Your task to perform on an android device: Go to accessibility settings Image 0: 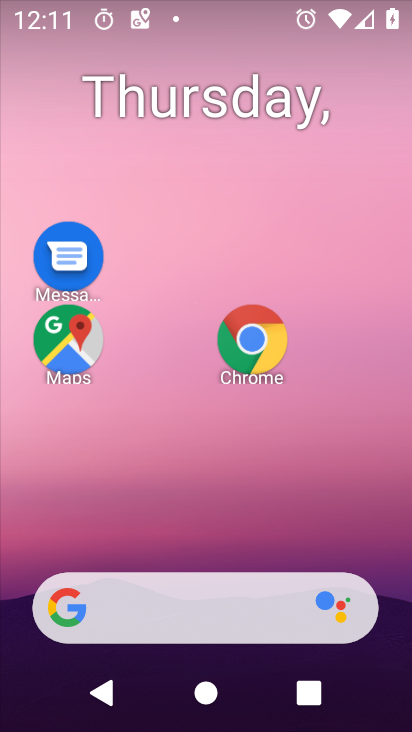
Step 0: drag from (204, 489) to (201, 29)
Your task to perform on an android device: Go to accessibility settings Image 1: 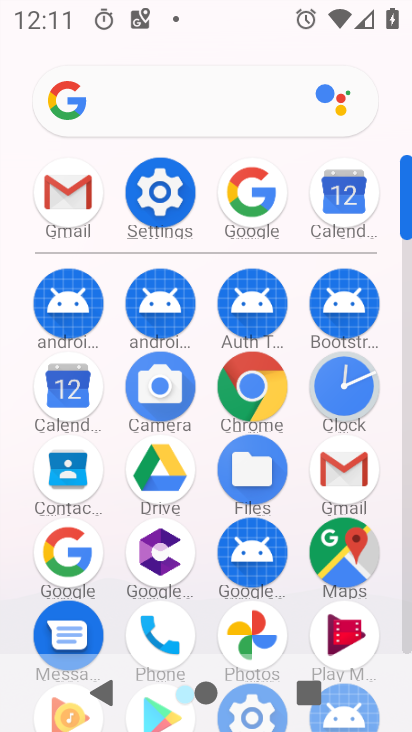
Step 1: click (154, 193)
Your task to perform on an android device: Go to accessibility settings Image 2: 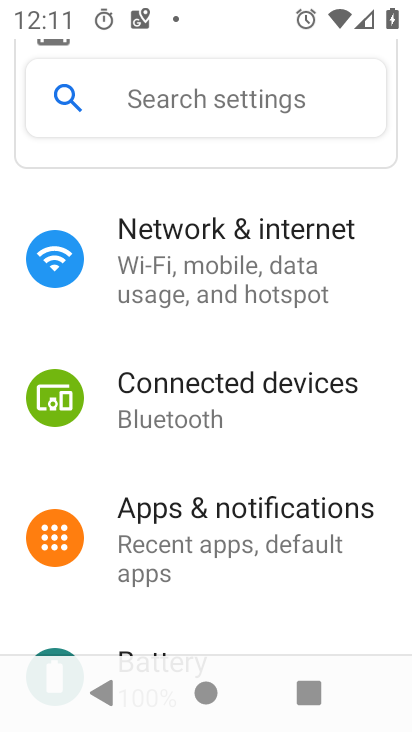
Step 2: drag from (245, 466) to (256, 87)
Your task to perform on an android device: Go to accessibility settings Image 3: 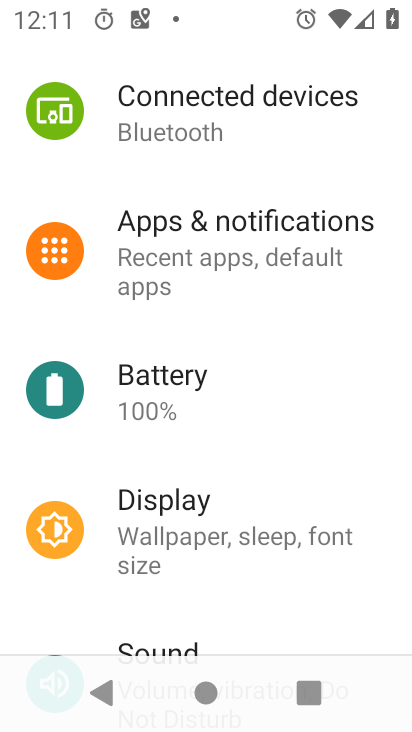
Step 3: drag from (246, 620) to (253, 92)
Your task to perform on an android device: Go to accessibility settings Image 4: 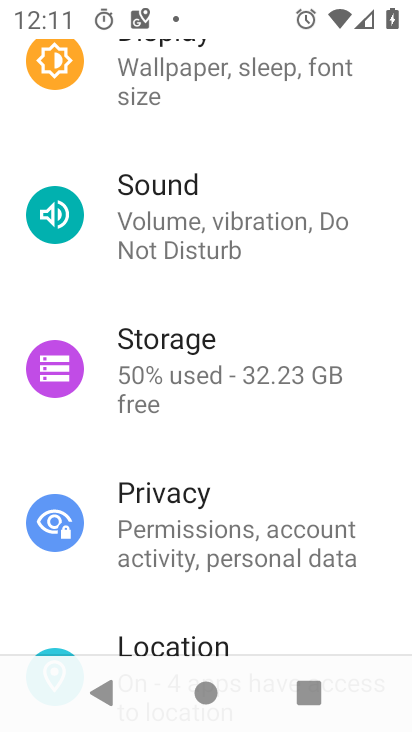
Step 4: drag from (207, 537) to (248, 52)
Your task to perform on an android device: Go to accessibility settings Image 5: 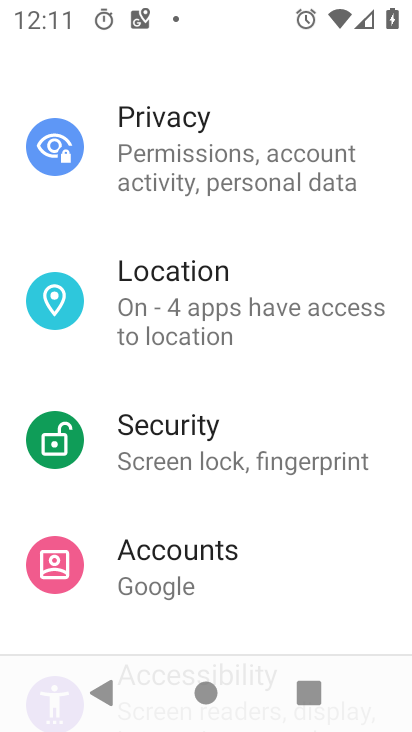
Step 5: drag from (311, 582) to (314, 294)
Your task to perform on an android device: Go to accessibility settings Image 6: 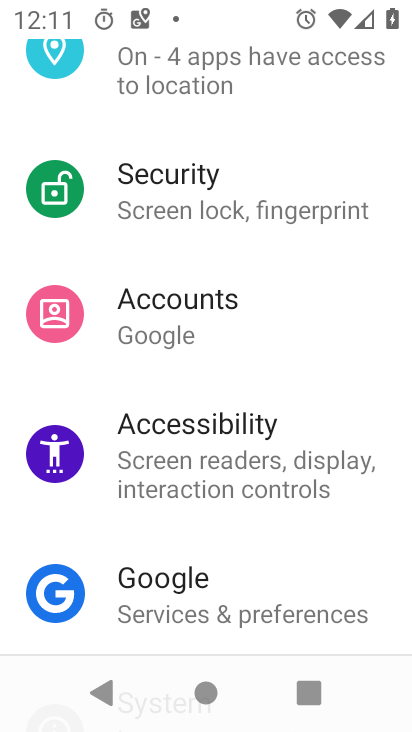
Step 6: click (246, 427)
Your task to perform on an android device: Go to accessibility settings Image 7: 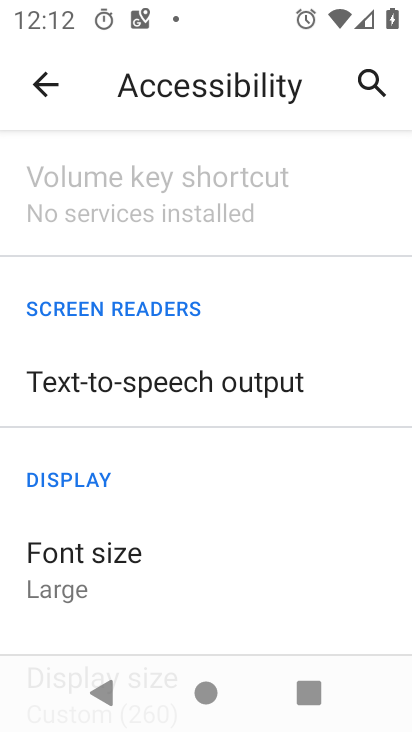
Step 7: task complete